Your task to perform on an android device: Go to Yahoo.com Image 0: 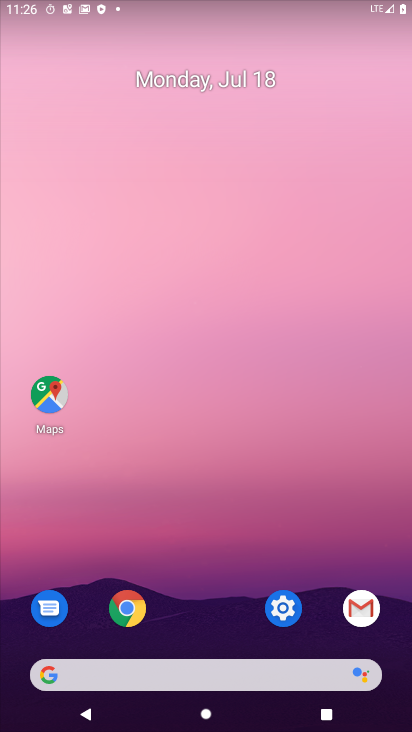
Step 0: click (136, 617)
Your task to perform on an android device: Go to Yahoo.com Image 1: 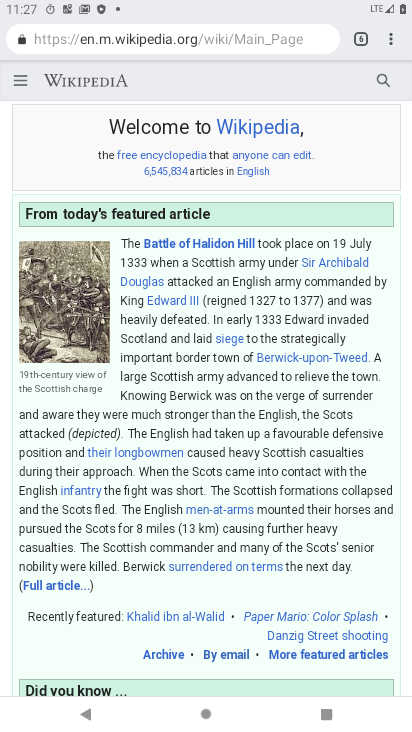
Step 1: click (353, 41)
Your task to perform on an android device: Go to Yahoo.com Image 2: 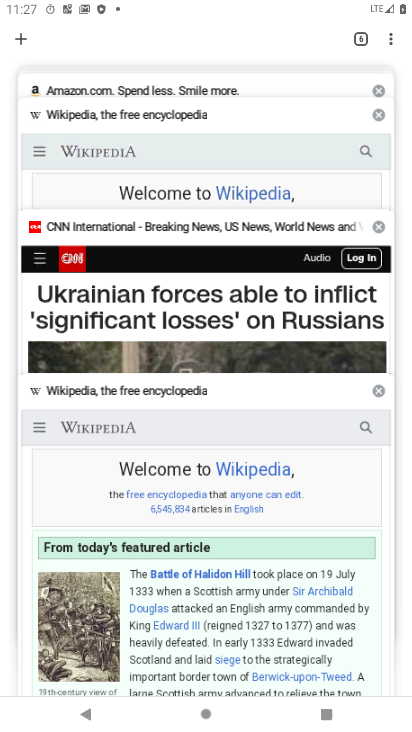
Step 2: click (25, 39)
Your task to perform on an android device: Go to Yahoo.com Image 3: 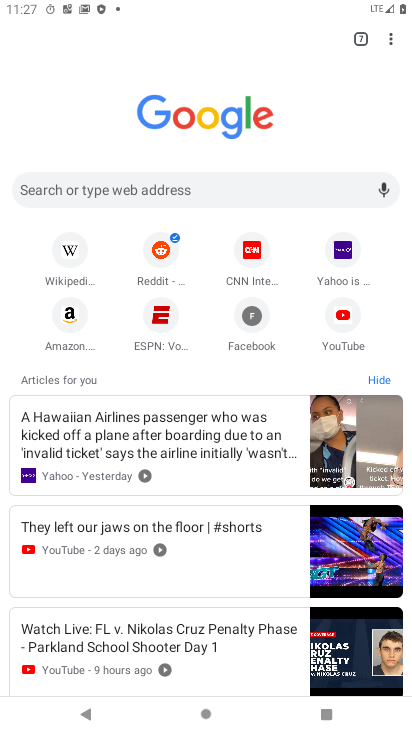
Step 3: click (329, 257)
Your task to perform on an android device: Go to Yahoo.com Image 4: 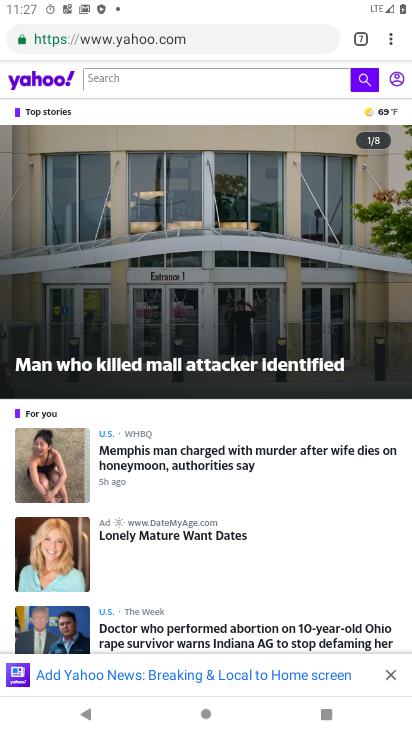
Step 4: task complete